Your task to perform on an android device: Search for the best selling jewelry on Etsy. Image 0: 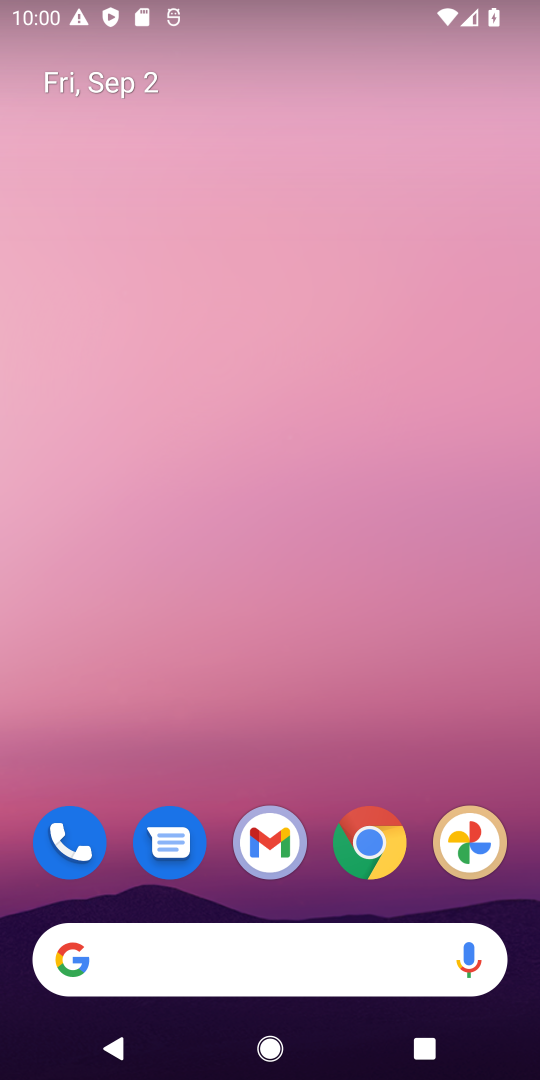
Step 0: drag from (257, 744) to (312, 243)
Your task to perform on an android device: Search for the best selling jewelry on Etsy. Image 1: 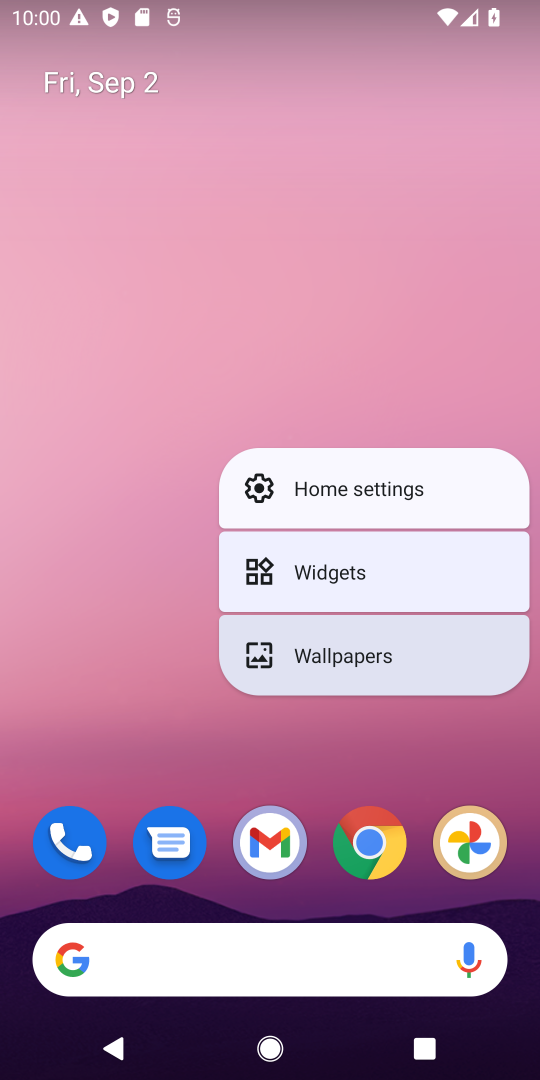
Step 1: click (283, 326)
Your task to perform on an android device: Search for the best selling jewelry on Etsy. Image 2: 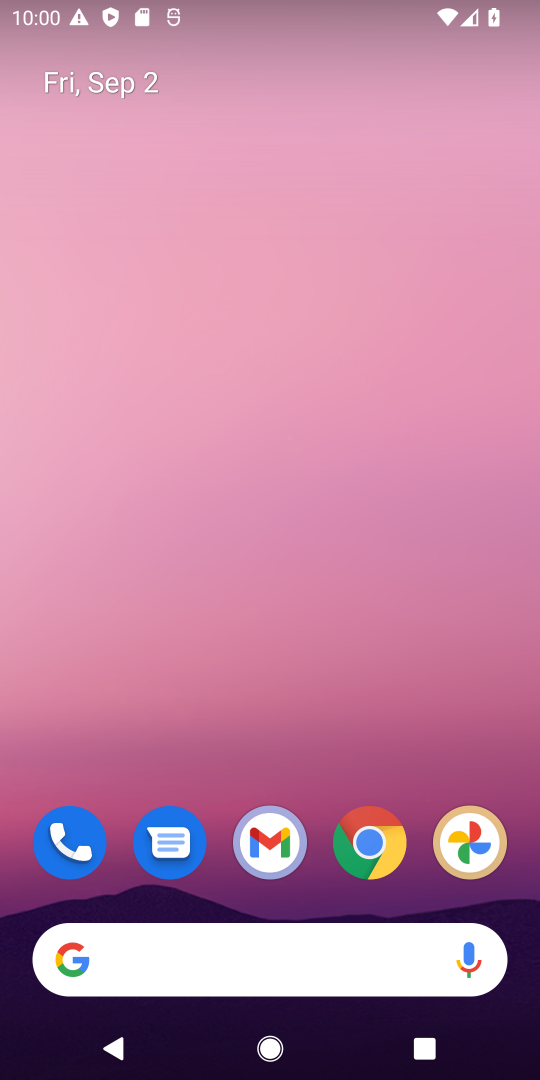
Step 2: drag from (384, 474) to (365, 252)
Your task to perform on an android device: Search for the best selling jewelry on Etsy. Image 3: 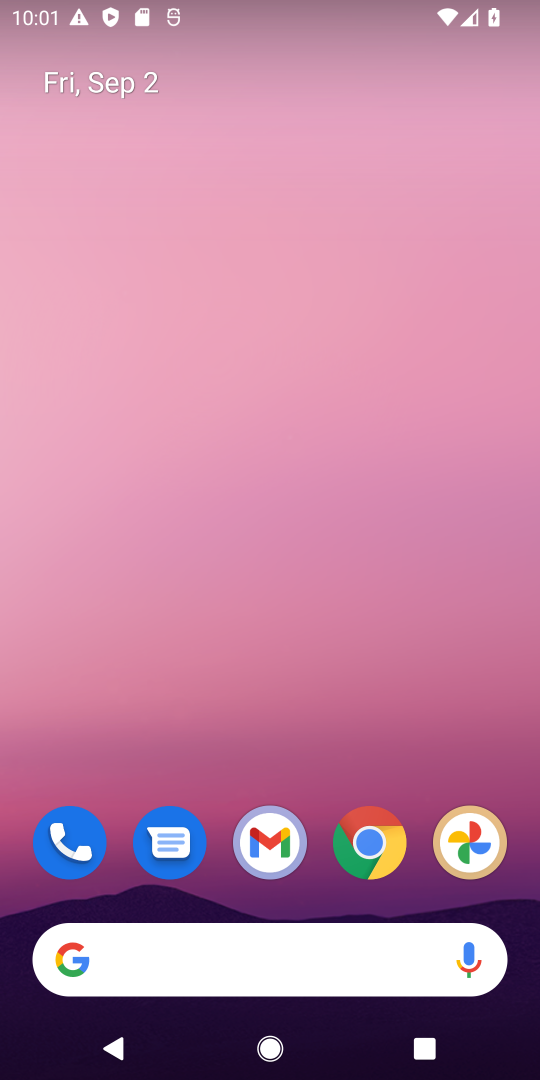
Step 3: drag from (218, 960) to (191, 353)
Your task to perform on an android device: Search for the best selling jewelry on Etsy. Image 4: 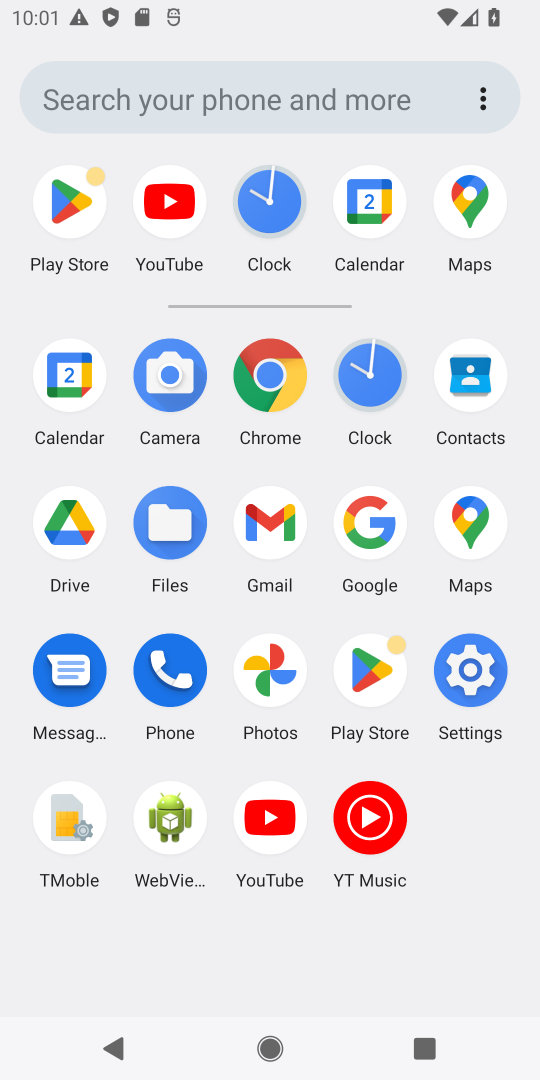
Step 4: click (253, 391)
Your task to perform on an android device: Search for the best selling jewelry on Etsy. Image 5: 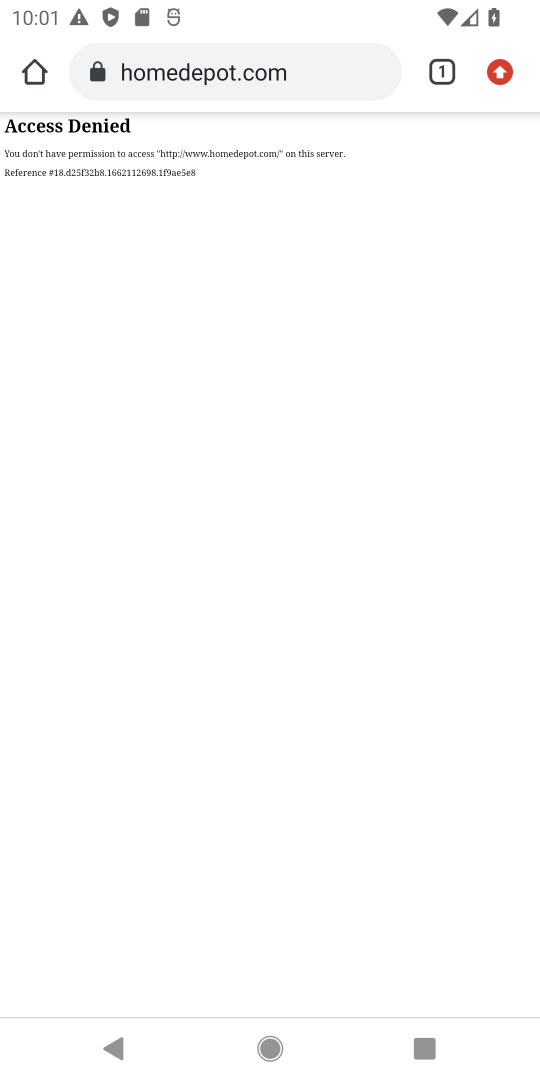
Step 5: click (310, 59)
Your task to perform on an android device: Search for the best selling jewelry on Etsy. Image 6: 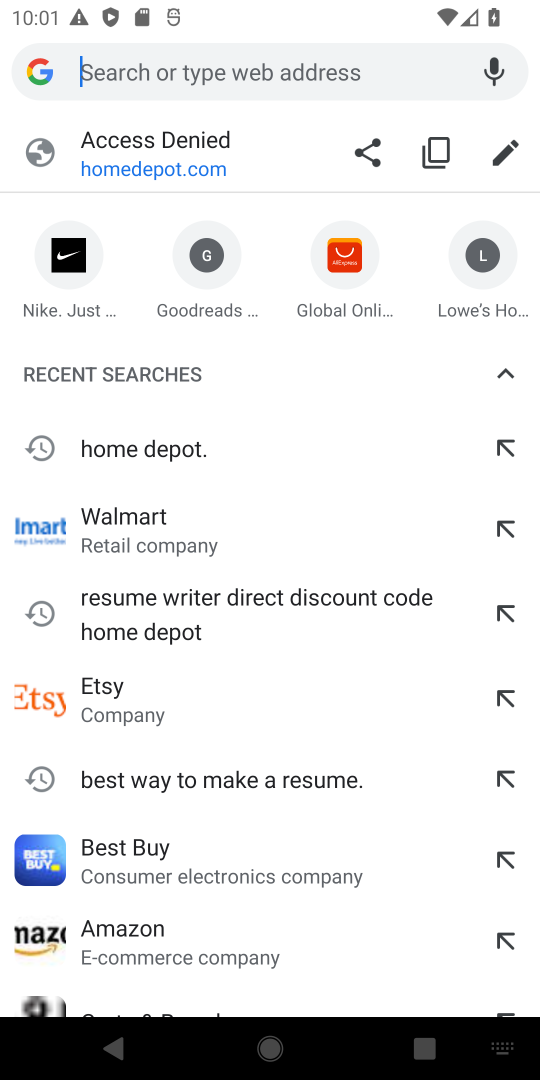
Step 6: type "Etsy"
Your task to perform on an android device: Search for the best selling jewelry on Etsy. Image 7: 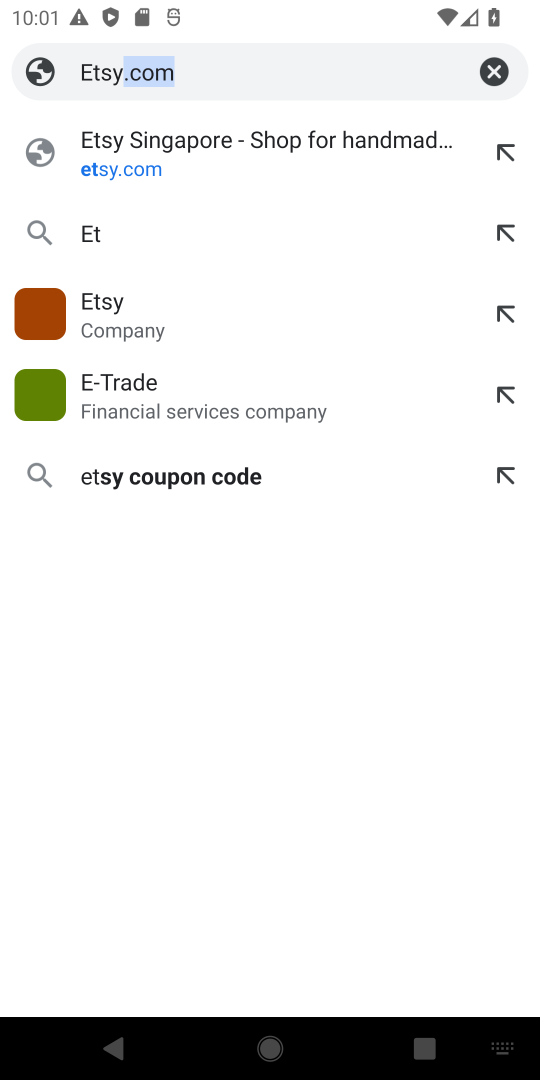
Step 7: press enter
Your task to perform on an android device: Search for the best selling jewelry on Etsy. Image 8: 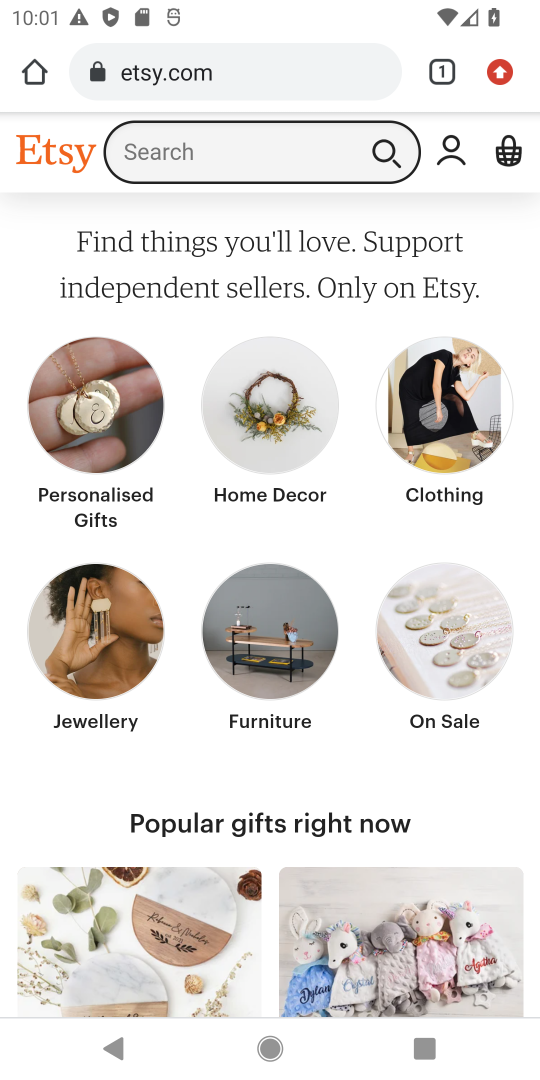
Step 8: click (198, 150)
Your task to perform on an android device: Search for the best selling jewelry on Etsy. Image 9: 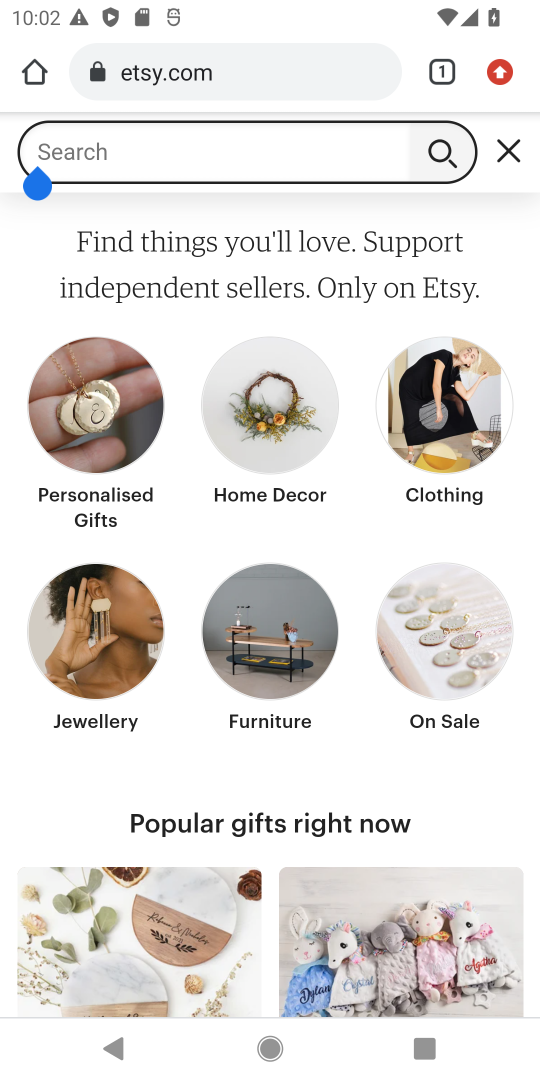
Step 9: press enter
Your task to perform on an android device: Search for the best selling jewelry on Etsy. Image 10: 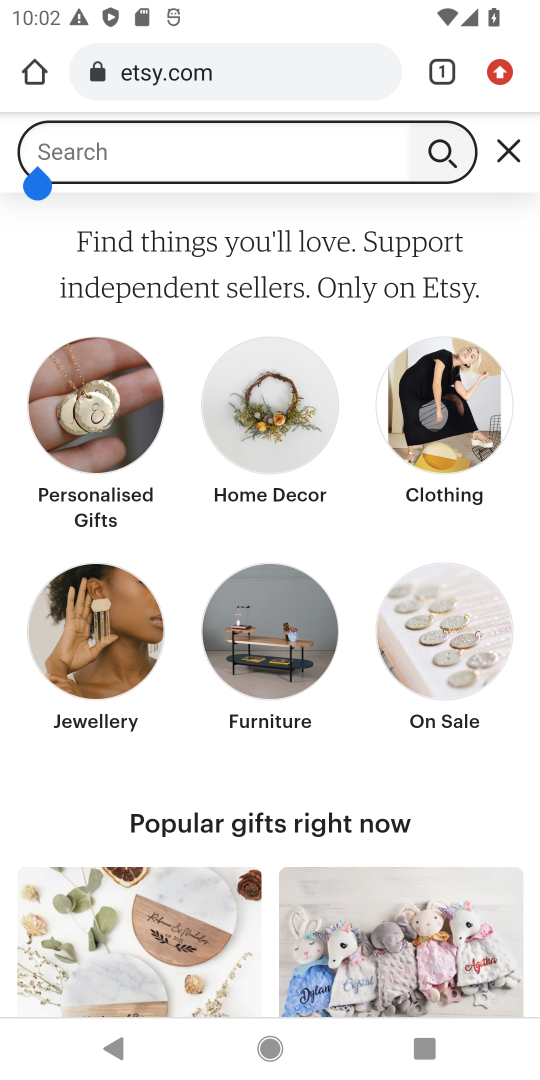
Step 10: type "best selling jewelry"
Your task to perform on an android device: Search for the best selling jewelry on Etsy. Image 11: 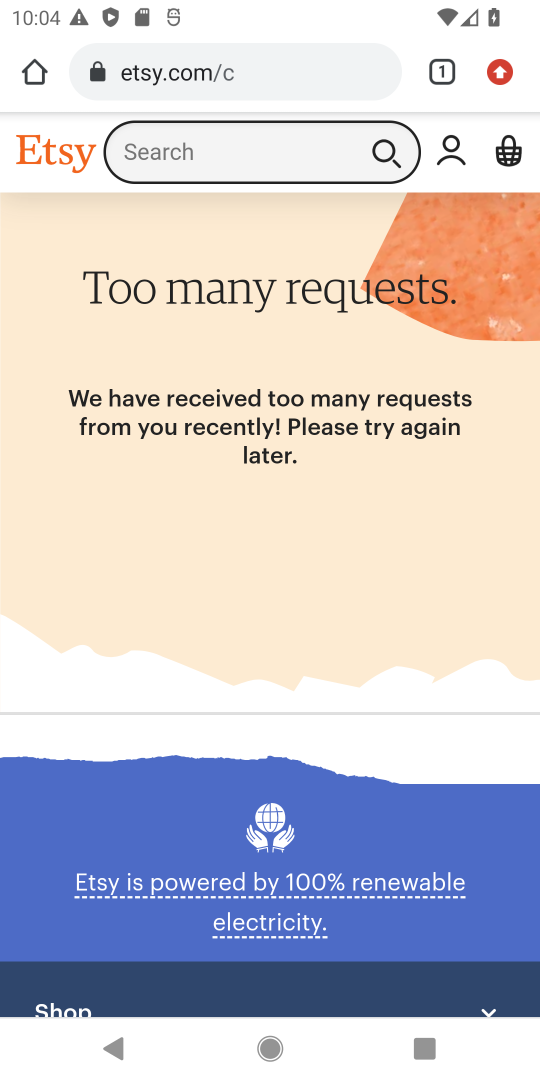
Step 11: task complete